Your task to perform on an android device: turn notification dots on Image 0: 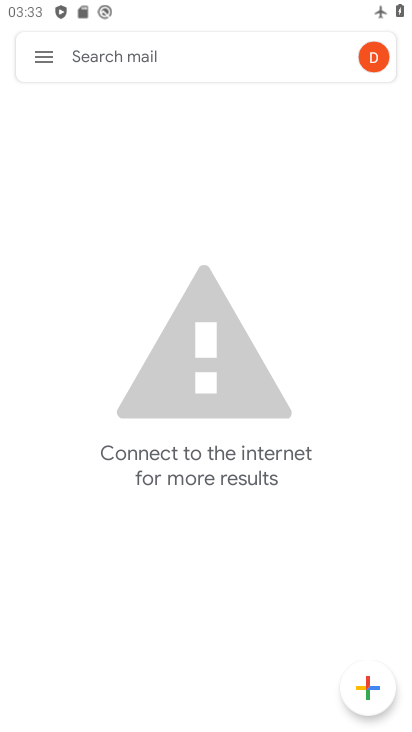
Step 0: press home button
Your task to perform on an android device: turn notification dots on Image 1: 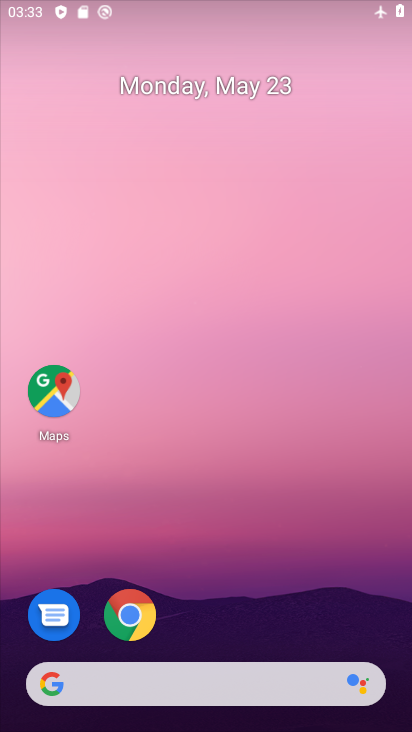
Step 1: drag from (238, 605) to (260, 290)
Your task to perform on an android device: turn notification dots on Image 2: 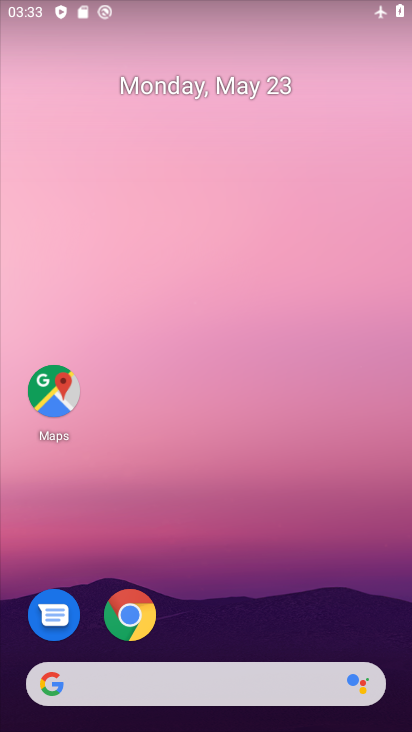
Step 2: drag from (217, 528) to (216, 271)
Your task to perform on an android device: turn notification dots on Image 3: 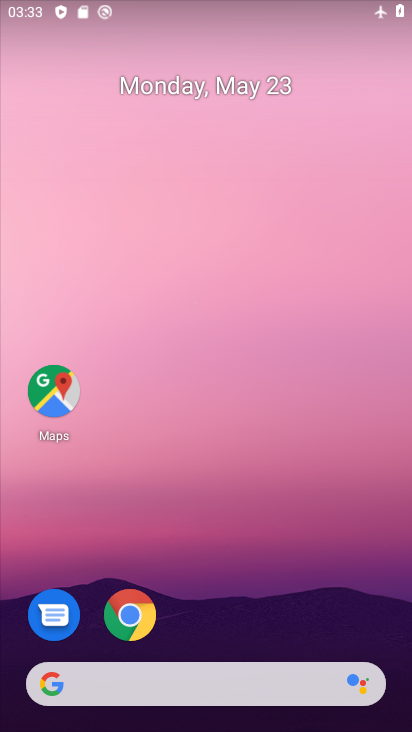
Step 3: drag from (260, 612) to (192, 319)
Your task to perform on an android device: turn notification dots on Image 4: 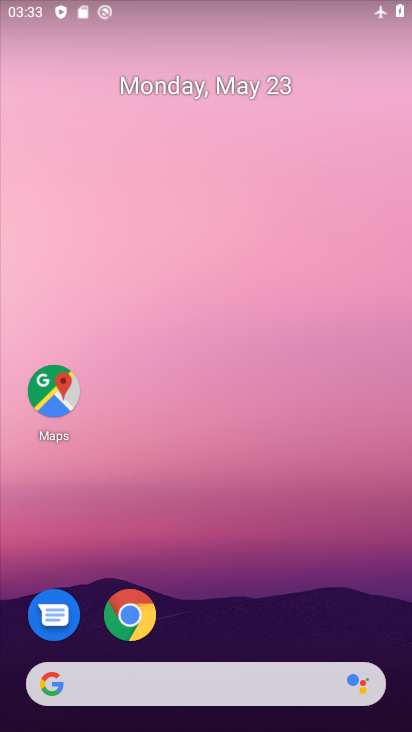
Step 4: drag from (230, 605) to (260, 203)
Your task to perform on an android device: turn notification dots on Image 5: 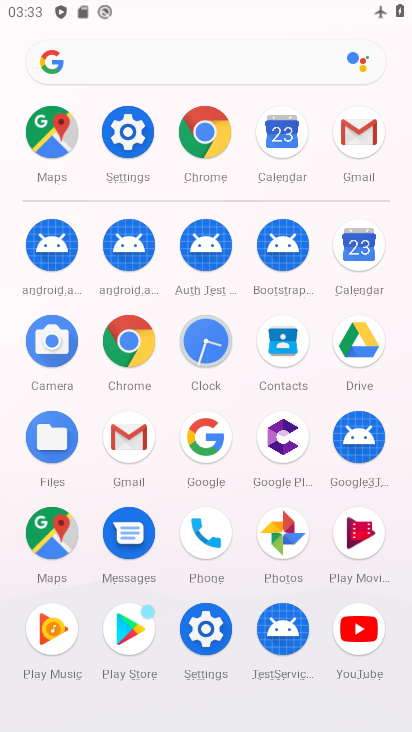
Step 5: click (115, 136)
Your task to perform on an android device: turn notification dots on Image 6: 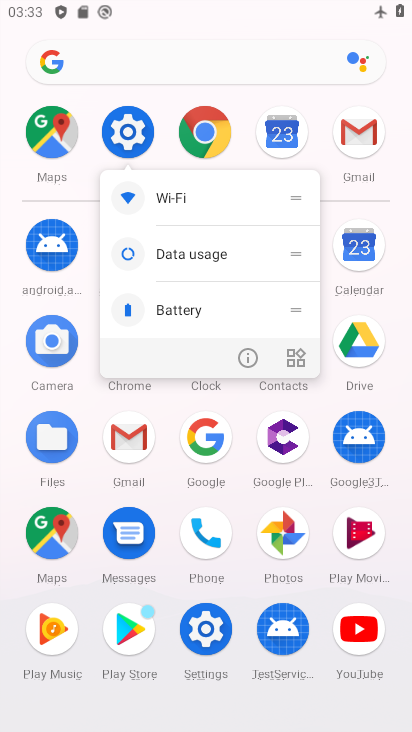
Step 6: click (135, 118)
Your task to perform on an android device: turn notification dots on Image 7: 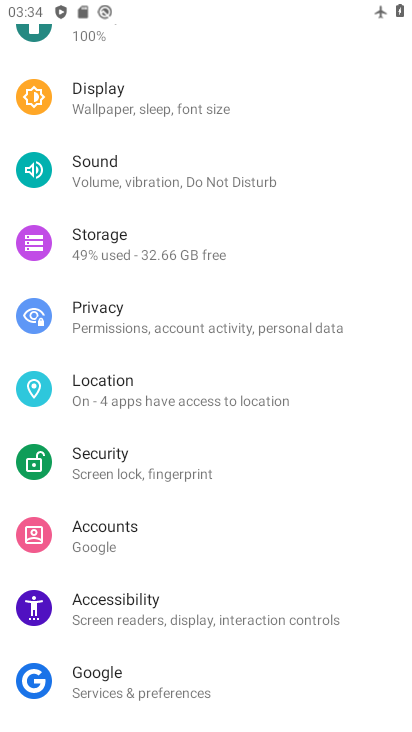
Step 7: drag from (128, 250) to (156, 654)
Your task to perform on an android device: turn notification dots on Image 8: 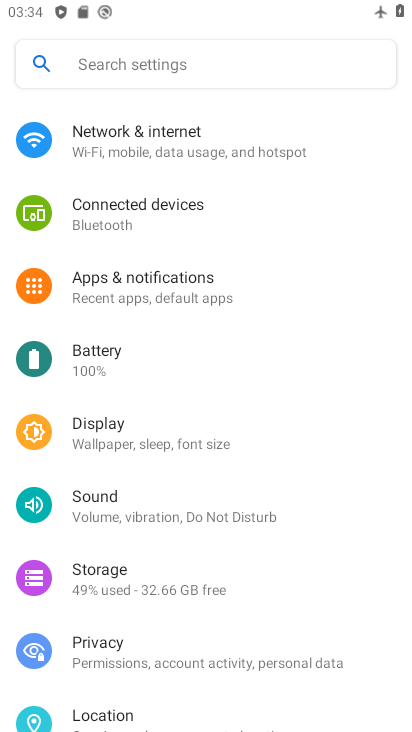
Step 8: click (109, 48)
Your task to perform on an android device: turn notification dots on Image 9: 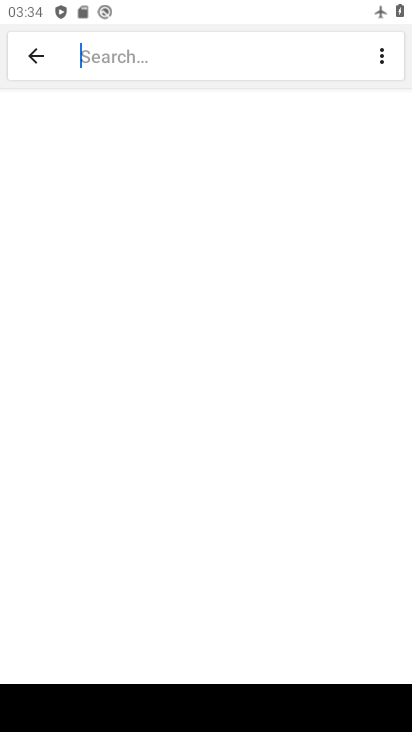
Step 9: click (173, 105)
Your task to perform on an android device: turn notification dots on Image 10: 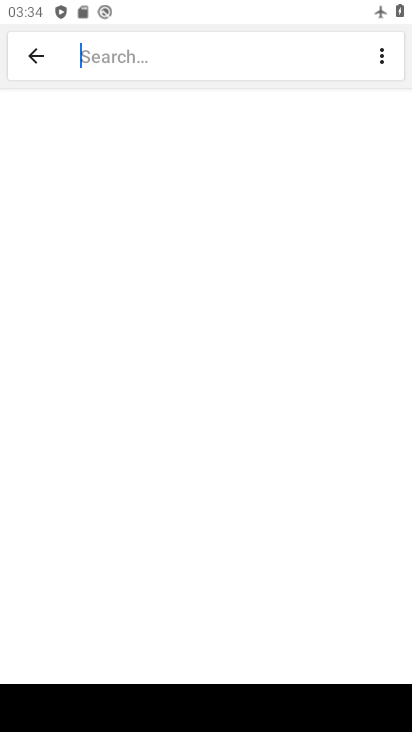
Step 10: click (165, 55)
Your task to perform on an android device: turn notification dots on Image 11: 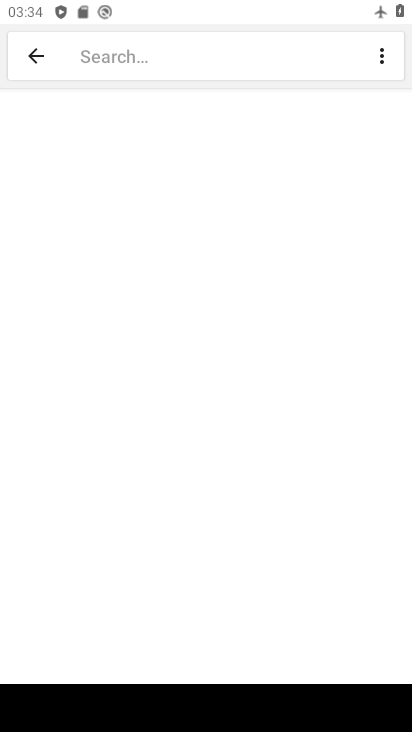
Step 11: type "notification dots "
Your task to perform on an android device: turn notification dots on Image 12: 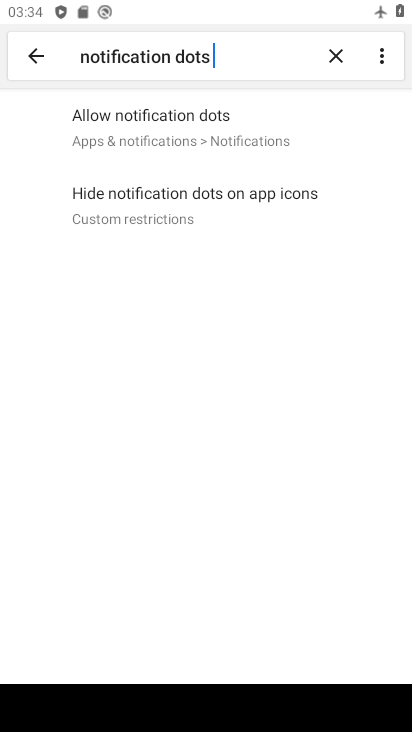
Step 12: drag from (251, 345) to (247, 421)
Your task to perform on an android device: turn notification dots on Image 13: 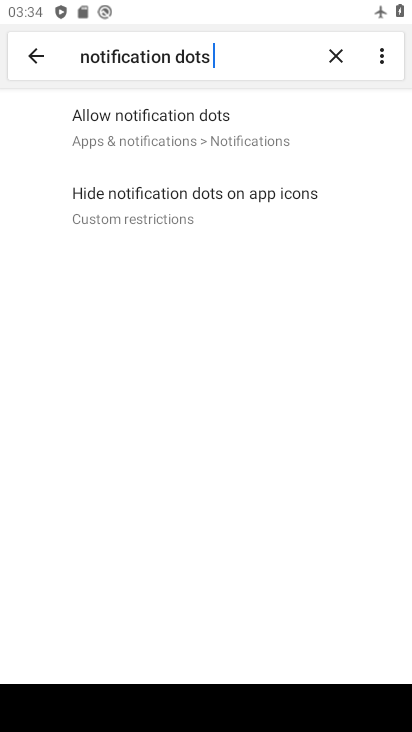
Step 13: click (151, 153)
Your task to perform on an android device: turn notification dots on Image 14: 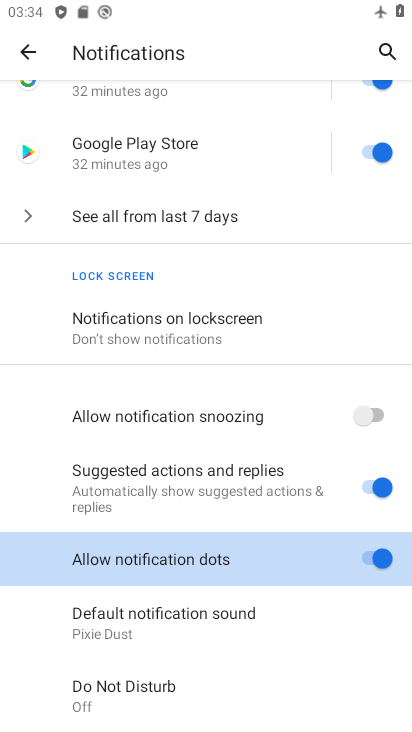
Step 14: task complete